Your task to perform on an android device: delete location history Image 0: 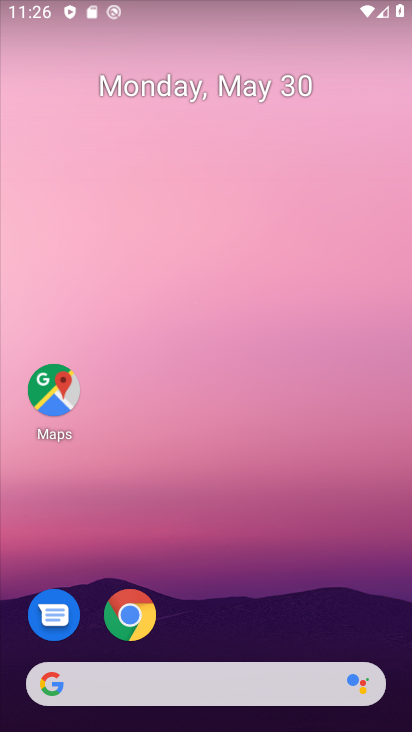
Step 0: drag from (317, 620) to (303, 135)
Your task to perform on an android device: delete location history Image 1: 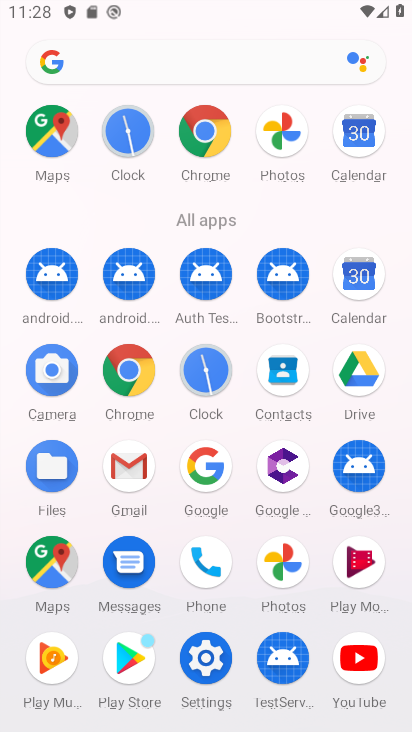
Step 1: click (72, 549)
Your task to perform on an android device: delete location history Image 2: 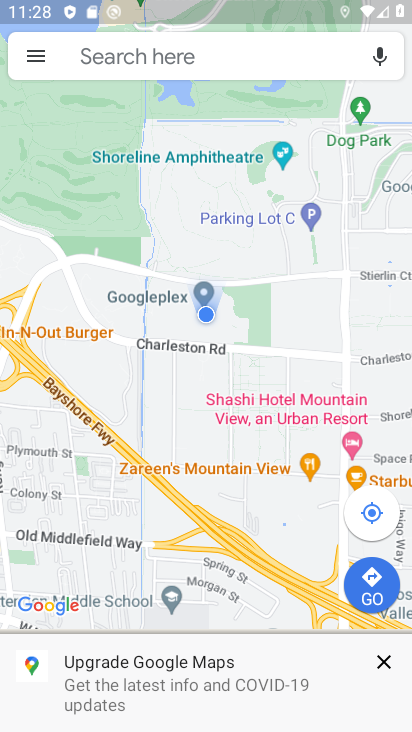
Step 2: click (32, 60)
Your task to perform on an android device: delete location history Image 3: 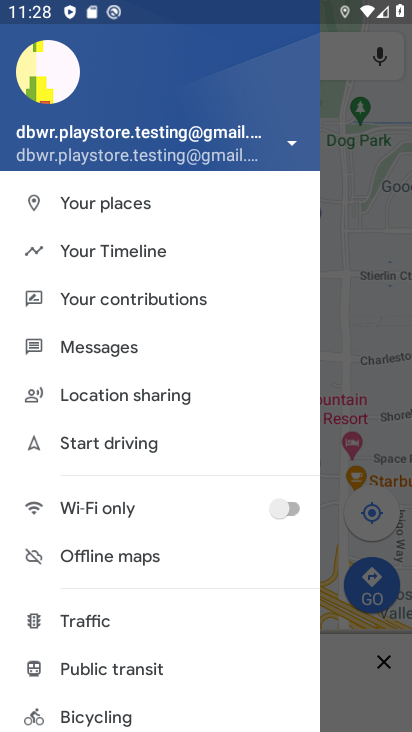
Step 3: click (167, 264)
Your task to perform on an android device: delete location history Image 4: 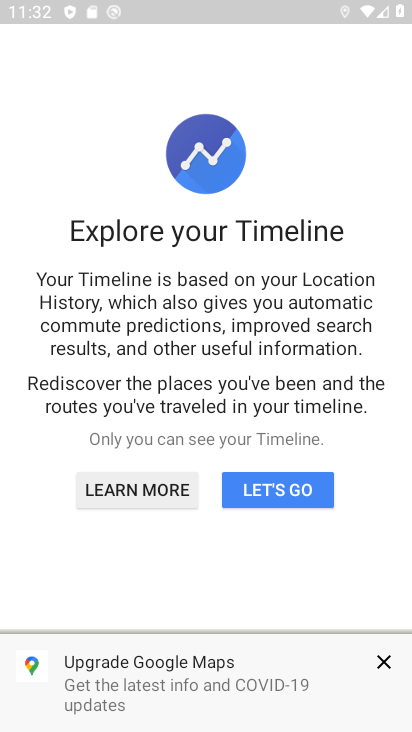
Step 4: click (268, 493)
Your task to perform on an android device: delete location history Image 5: 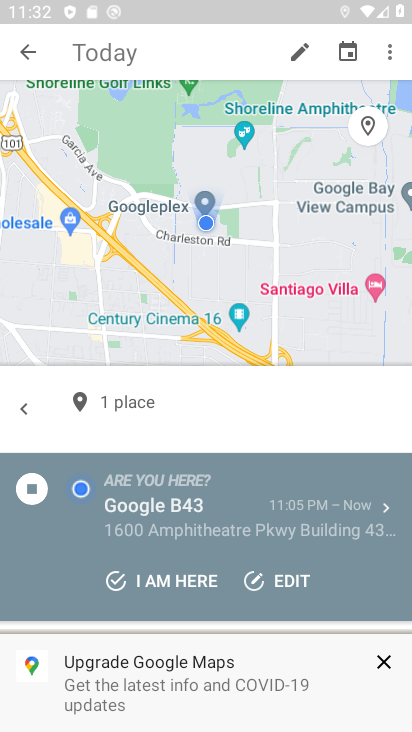
Step 5: click (385, 52)
Your task to perform on an android device: delete location history Image 6: 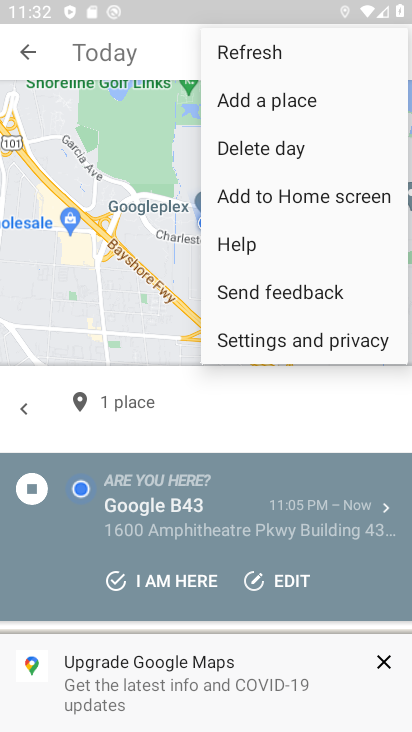
Step 6: click (314, 345)
Your task to perform on an android device: delete location history Image 7: 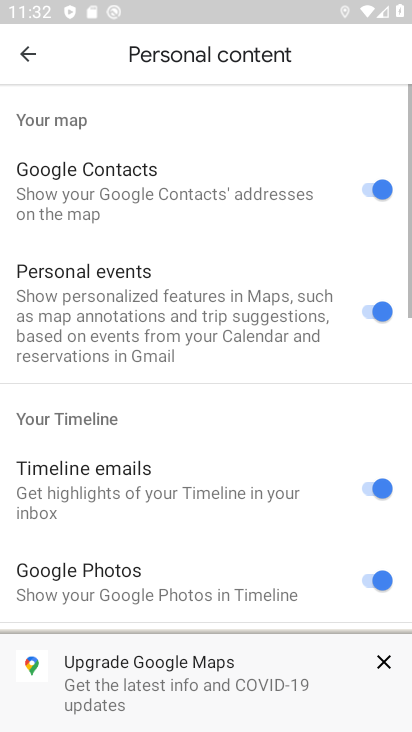
Step 7: drag from (302, 499) to (282, 374)
Your task to perform on an android device: delete location history Image 8: 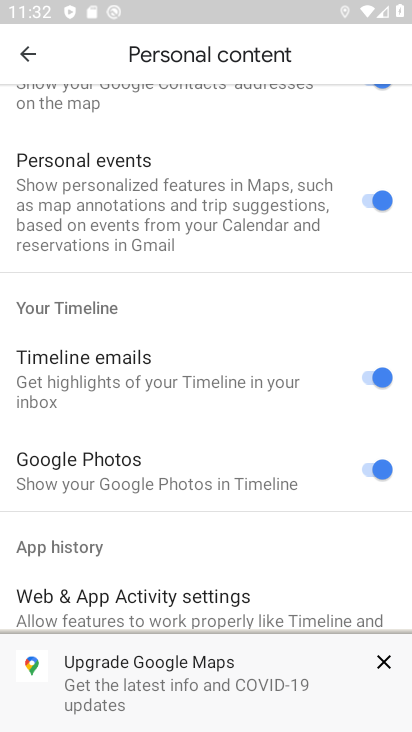
Step 8: drag from (264, 525) to (252, 409)
Your task to perform on an android device: delete location history Image 9: 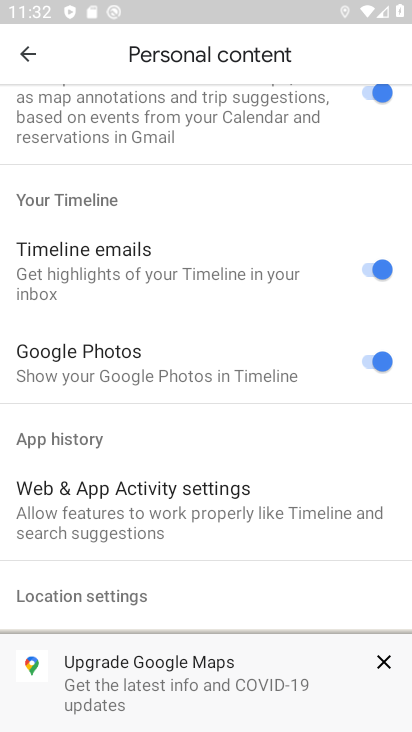
Step 9: drag from (251, 511) to (238, 423)
Your task to perform on an android device: delete location history Image 10: 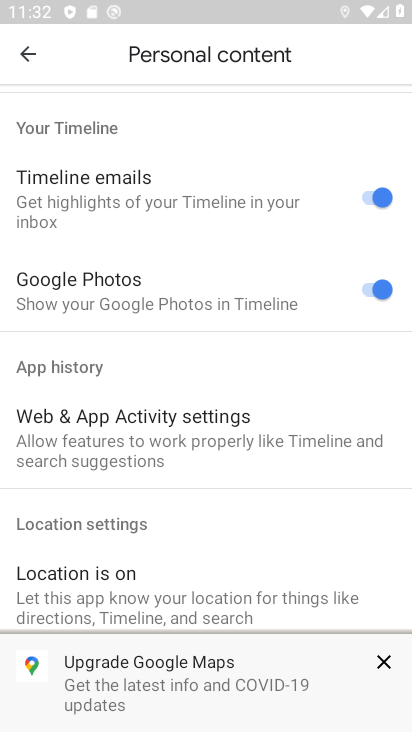
Step 10: click (236, 484)
Your task to perform on an android device: delete location history Image 11: 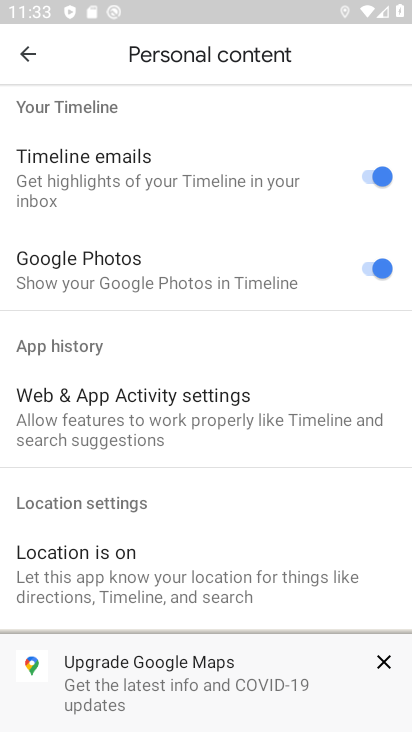
Step 11: click (236, 452)
Your task to perform on an android device: delete location history Image 12: 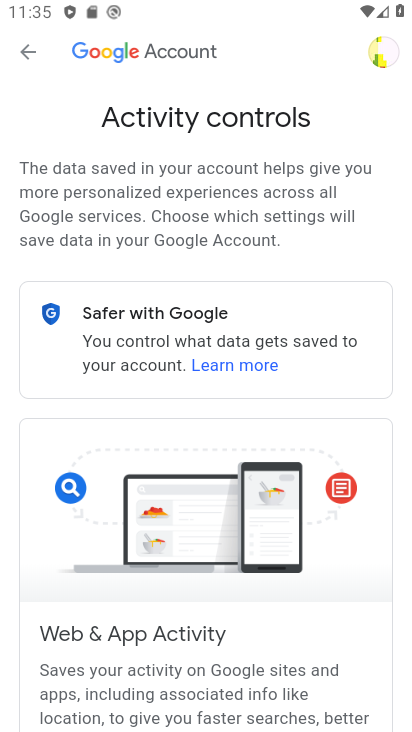
Step 12: press home button
Your task to perform on an android device: delete location history Image 13: 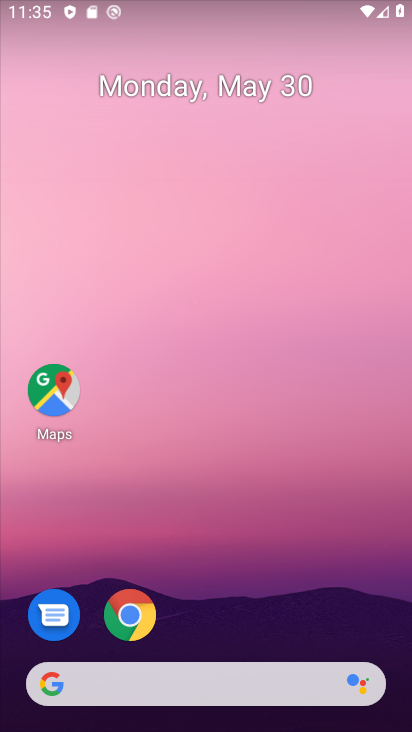
Step 13: drag from (340, 605) to (336, 160)
Your task to perform on an android device: delete location history Image 14: 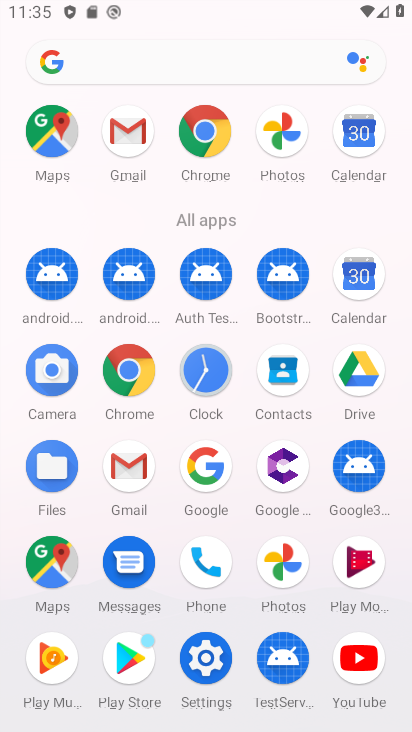
Step 14: click (61, 568)
Your task to perform on an android device: delete location history Image 15: 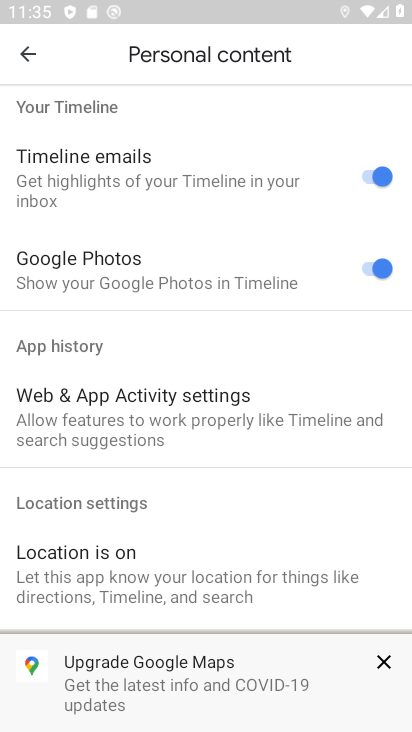
Step 15: click (27, 62)
Your task to perform on an android device: delete location history Image 16: 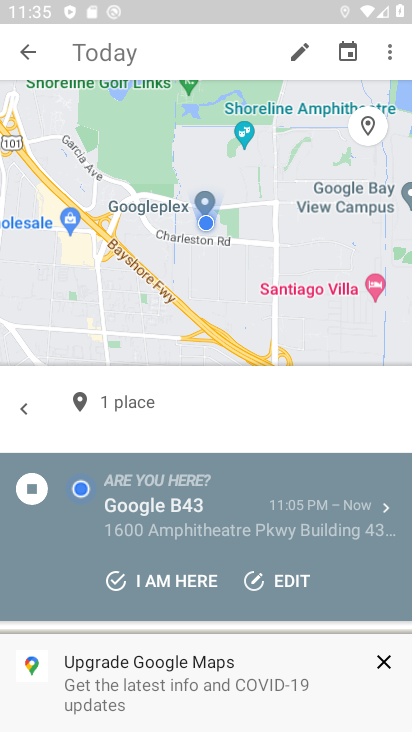
Step 16: click (393, 58)
Your task to perform on an android device: delete location history Image 17: 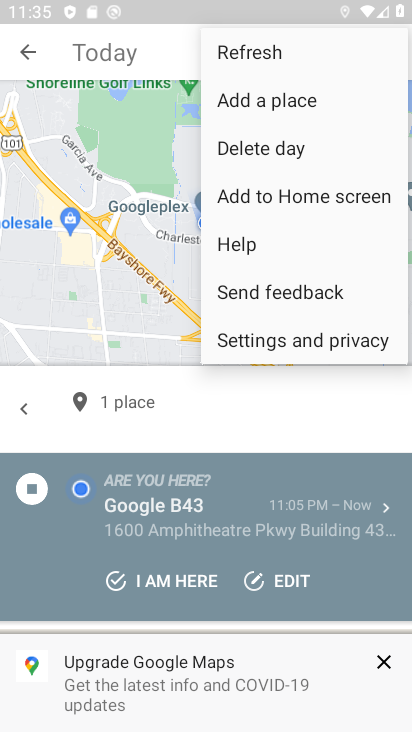
Step 17: click (264, 338)
Your task to perform on an android device: delete location history Image 18: 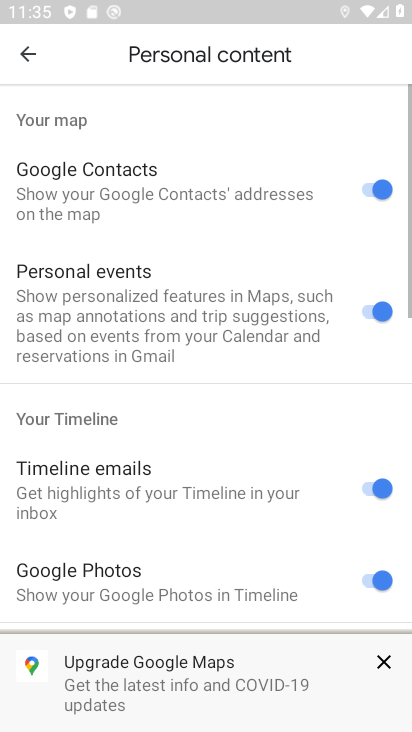
Step 18: drag from (270, 528) to (269, 353)
Your task to perform on an android device: delete location history Image 19: 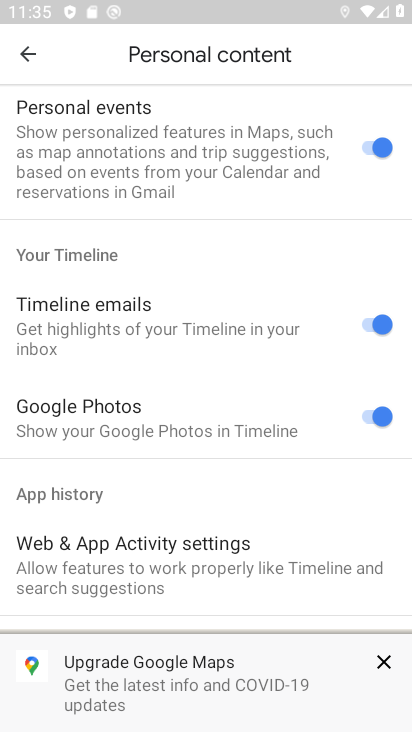
Step 19: drag from (265, 518) to (267, 382)
Your task to perform on an android device: delete location history Image 20: 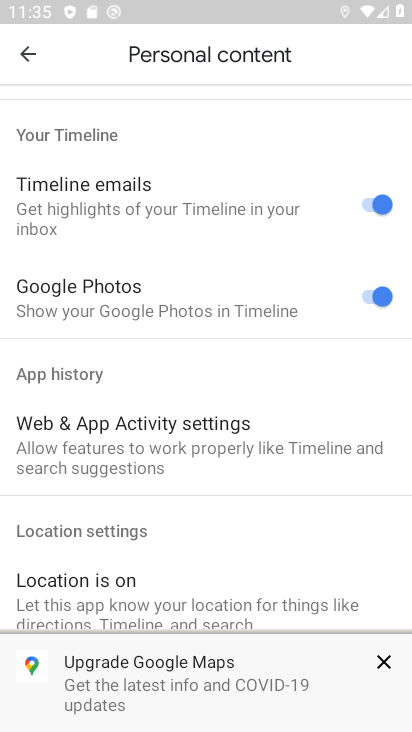
Step 20: drag from (250, 560) to (270, 335)
Your task to perform on an android device: delete location history Image 21: 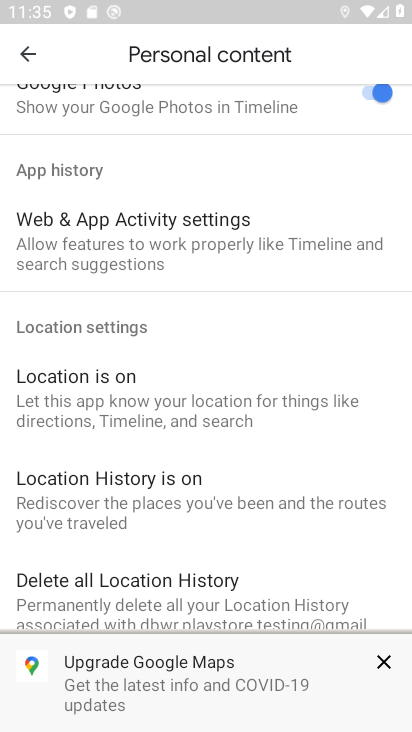
Step 21: drag from (262, 557) to (276, 348)
Your task to perform on an android device: delete location history Image 22: 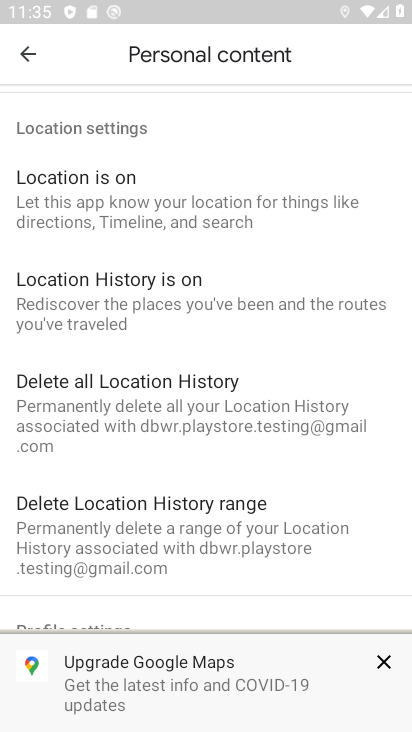
Step 22: click (289, 413)
Your task to perform on an android device: delete location history Image 23: 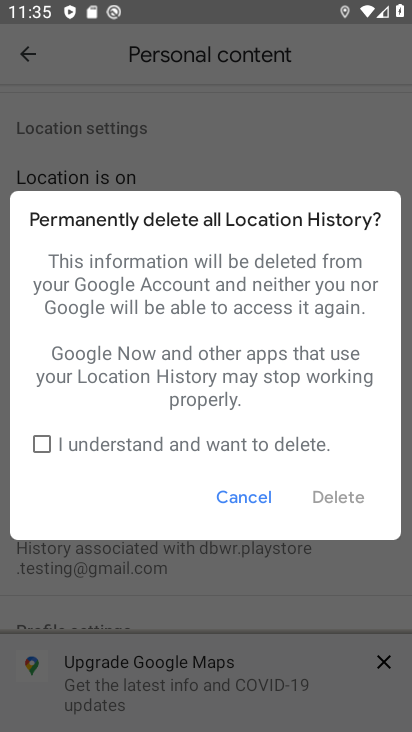
Step 23: click (47, 448)
Your task to perform on an android device: delete location history Image 24: 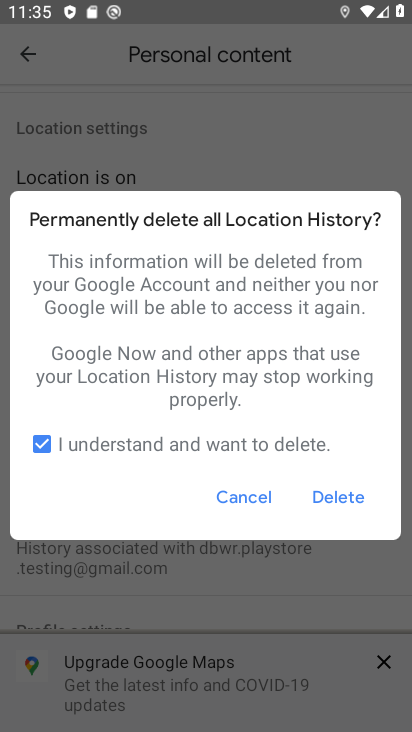
Step 24: click (361, 495)
Your task to perform on an android device: delete location history Image 25: 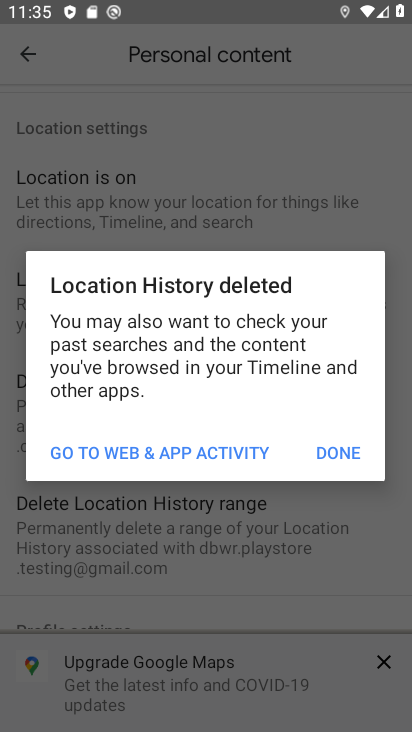
Step 25: task complete